Your task to perform on an android device: What is the news today? Image 0: 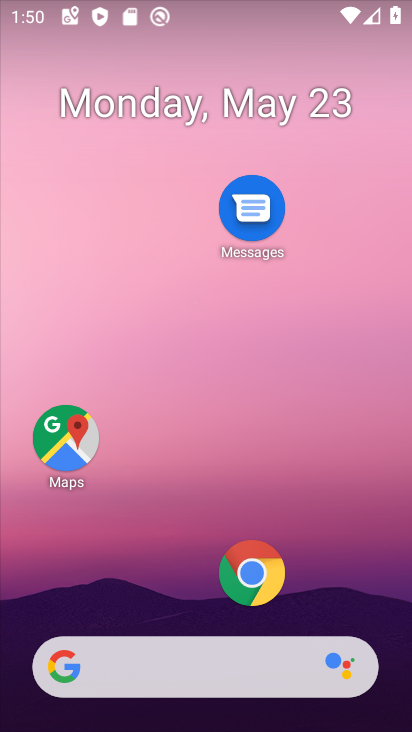
Step 0: drag from (182, 589) to (234, 142)
Your task to perform on an android device: What is the news today? Image 1: 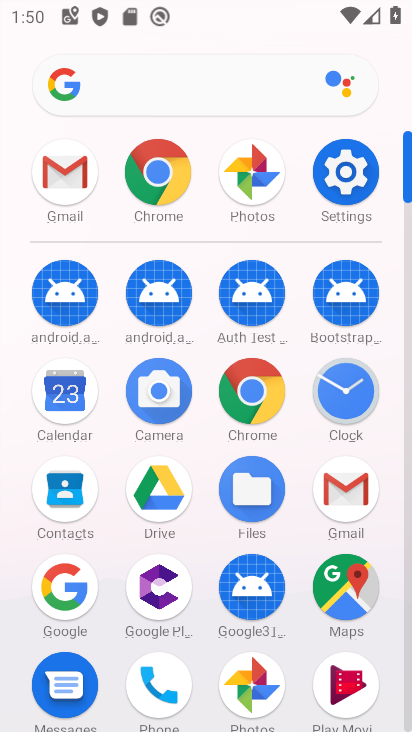
Step 1: click (170, 174)
Your task to perform on an android device: What is the news today? Image 2: 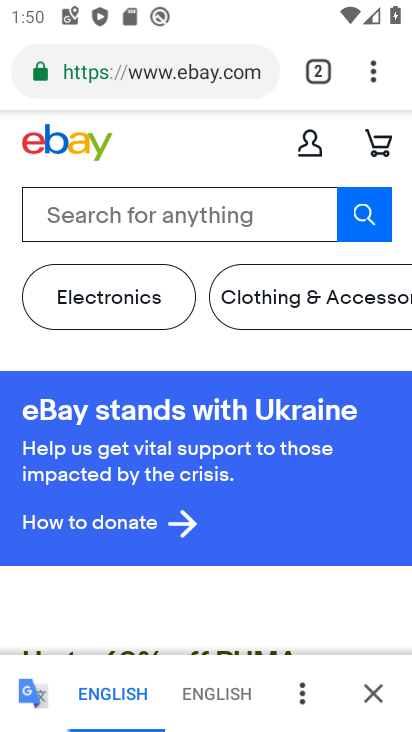
Step 2: click (223, 77)
Your task to perform on an android device: What is the news today? Image 3: 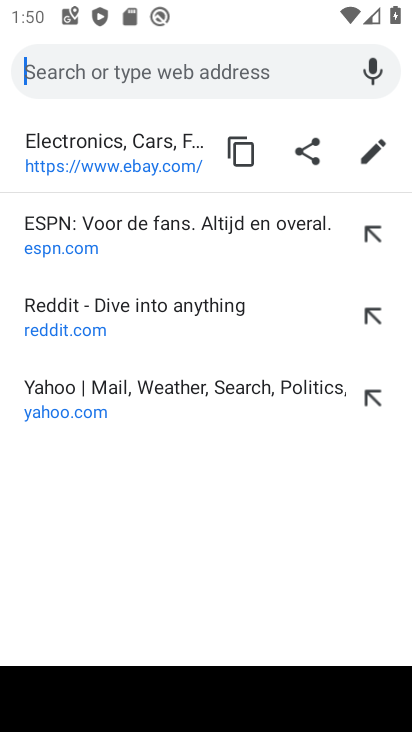
Step 3: type "what is the news today"
Your task to perform on an android device: What is the news today? Image 4: 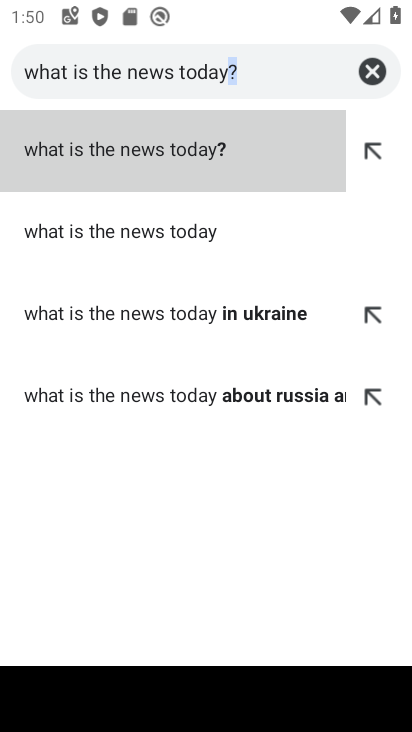
Step 4: click (116, 153)
Your task to perform on an android device: What is the news today? Image 5: 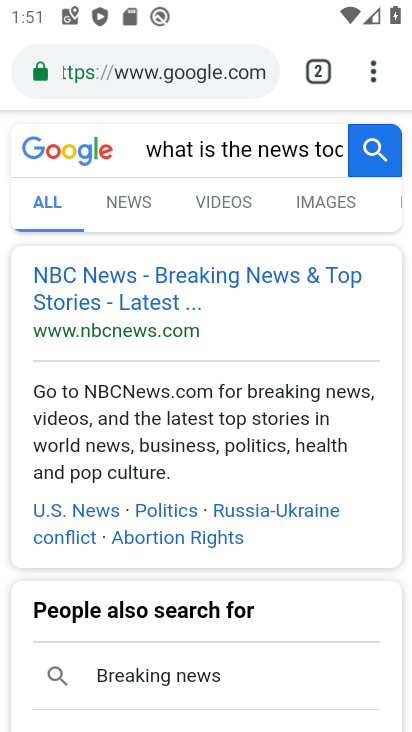
Step 5: click (198, 287)
Your task to perform on an android device: What is the news today? Image 6: 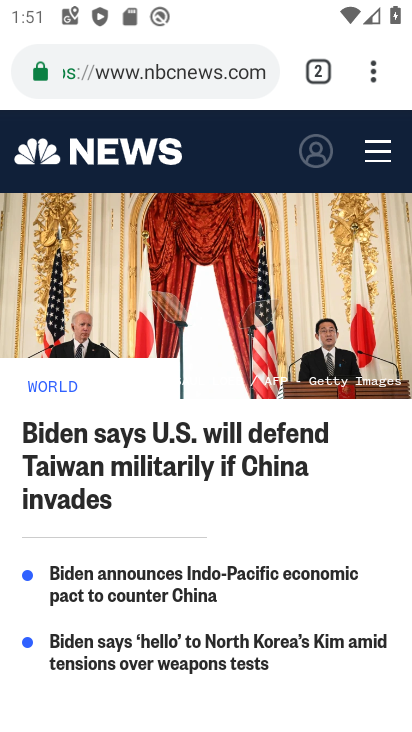
Step 6: task complete